Your task to perform on an android device: Open Google Maps Image 0: 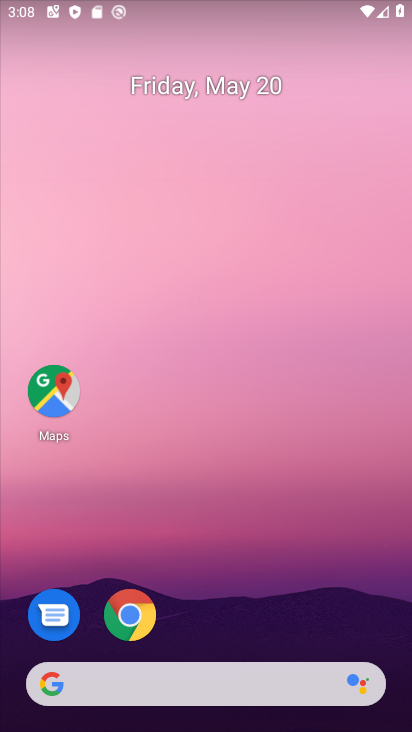
Step 0: drag from (275, 616) to (255, 249)
Your task to perform on an android device: Open Google Maps Image 1: 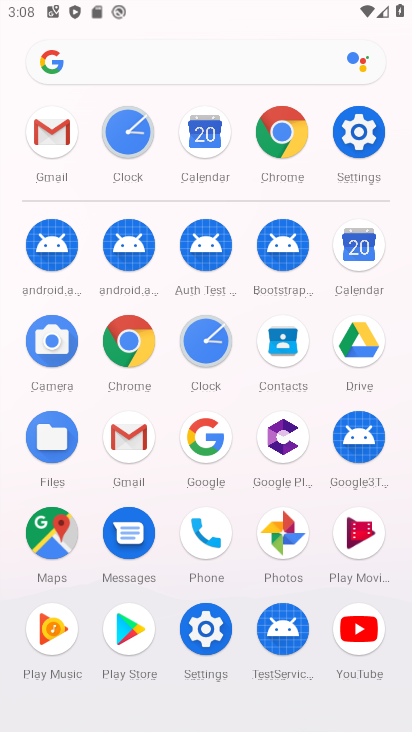
Step 1: drag from (234, 523) to (266, 296)
Your task to perform on an android device: Open Google Maps Image 2: 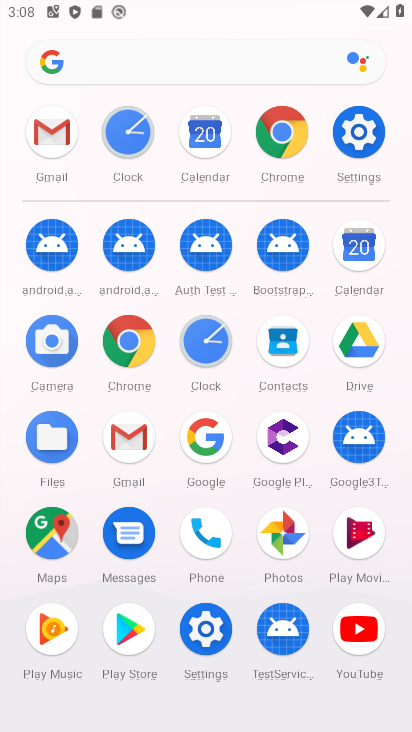
Step 2: drag from (264, 590) to (278, 638)
Your task to perform on an android device: Open Google Maps Image 3: 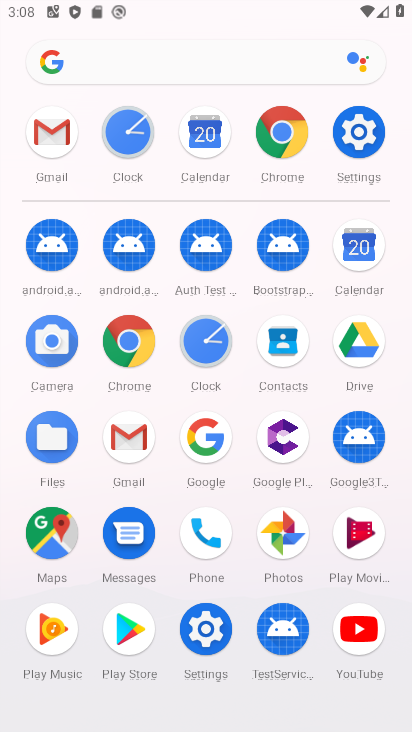
Step 3: click (200, 430)
Your task to perform on an android device: Open Google Maps Image 4: 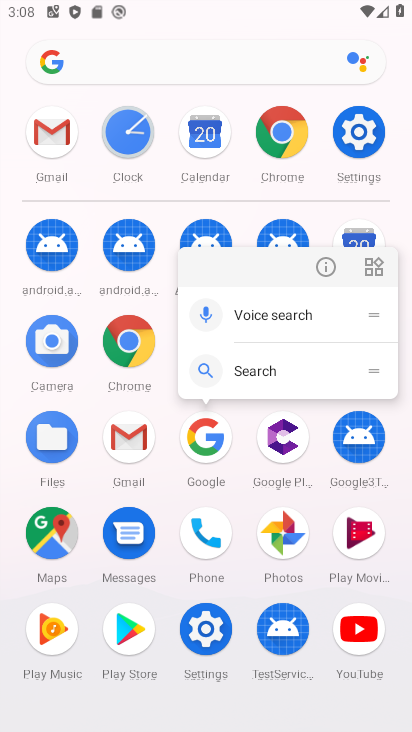
Step 4: click (204, 434)
Your task to perform on an android device: Open Google Maps Image 5: 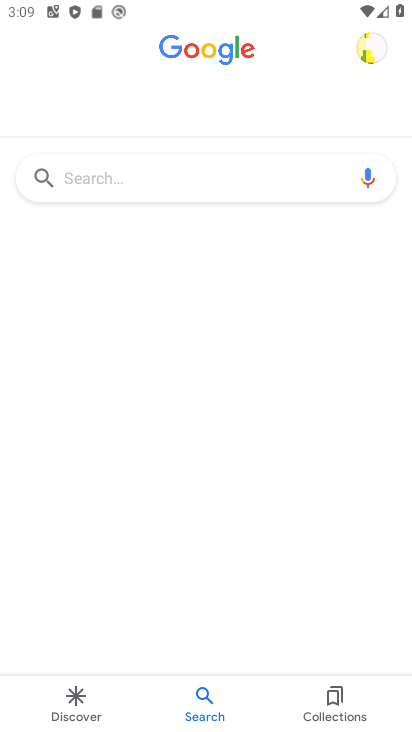
Step 5: press home button
Your task to perform on an android device: Open Google Maps Image 6: 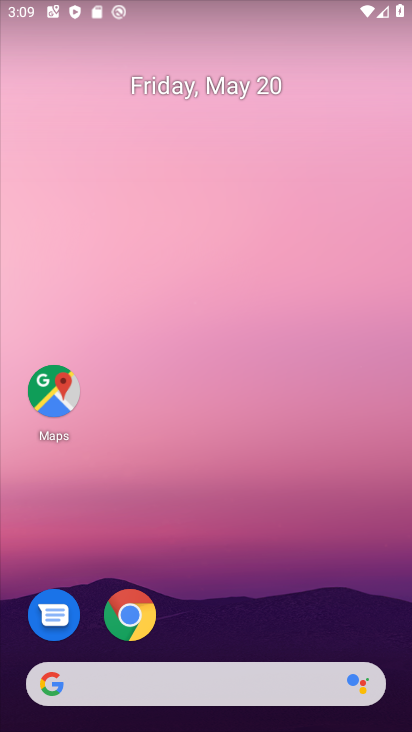
Step 6: click (38, 384)
Your task to perform on an android device: Open Google Maps Image 7: 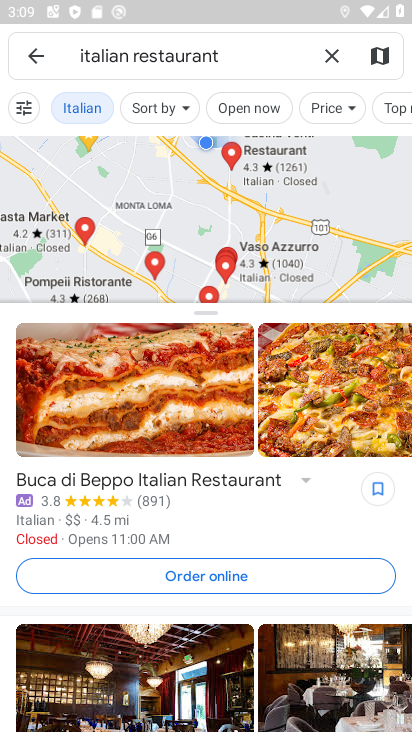
Step 7: task complete